Your task to perform on an android device: See recent photos Image 0: 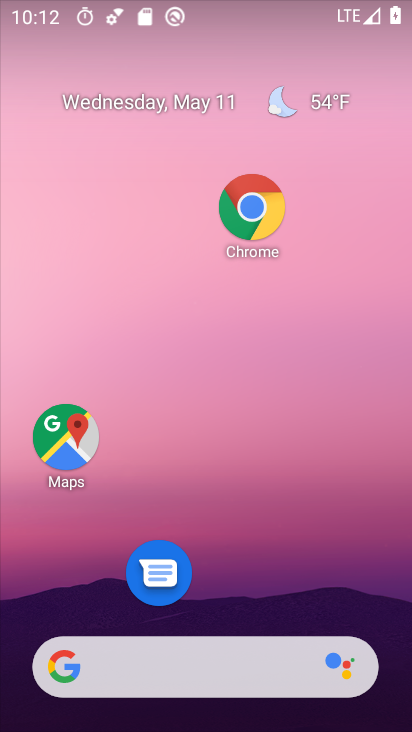
Step 0: drag from (197, 647) to (296, 177)
Your task to perform on an android device: See recent photos Image 1: 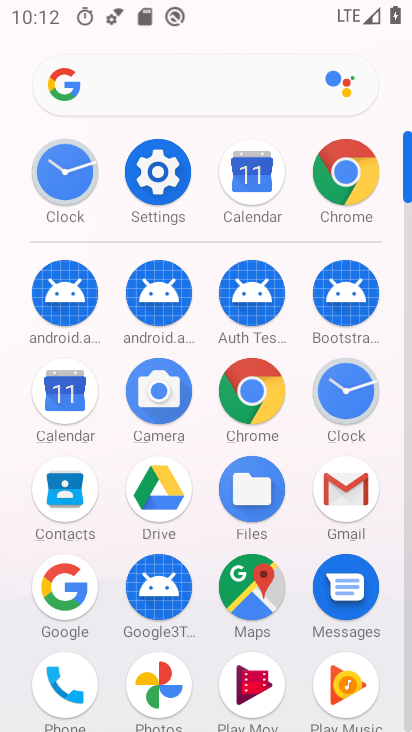
Step 1: click (170, 680)
Your task to perform on an android device: See recent photos Image 2: 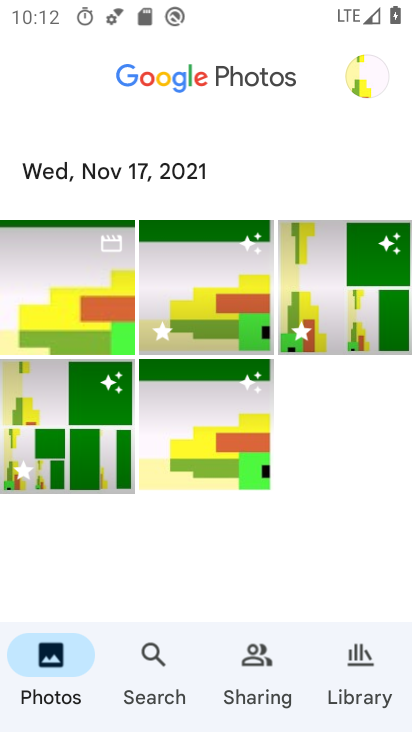
Step 2: task complete